Your task to perform on an android device: Open CNN.com Image 0: 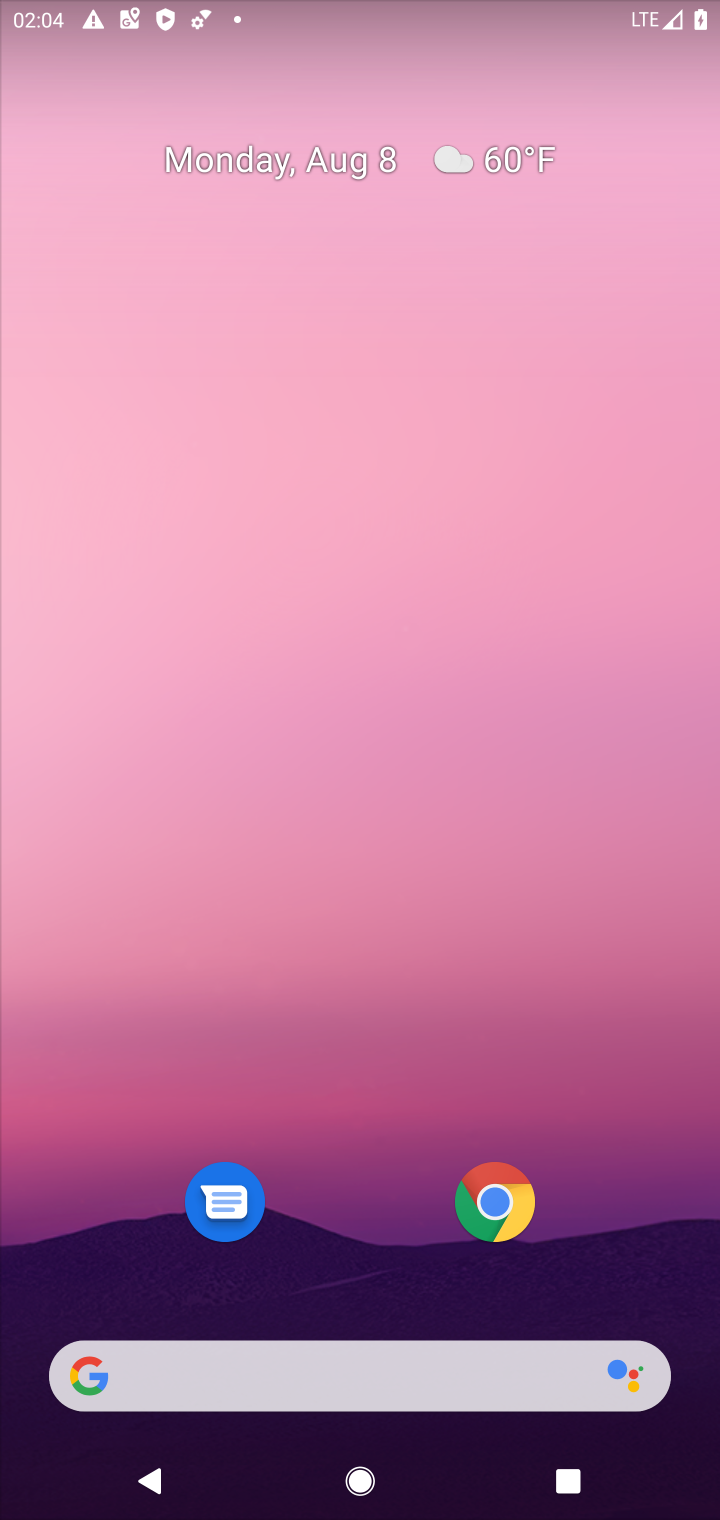
Step 0: click (498, 1207)
Your task to perform on an android device: Open CNN.com Image 1: 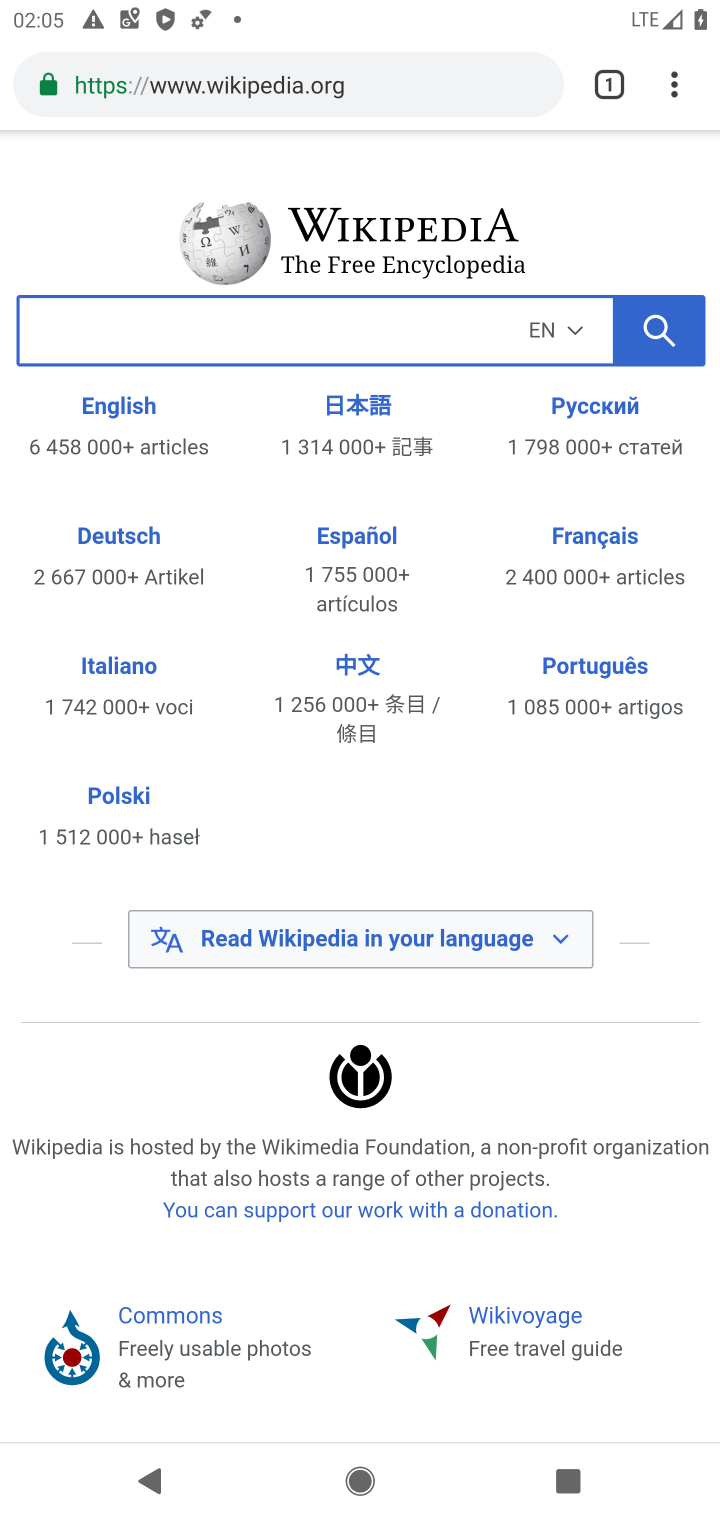
Step 1: click (326, 89)
Your task to perform on an android device: Open CNN.com Image 2: 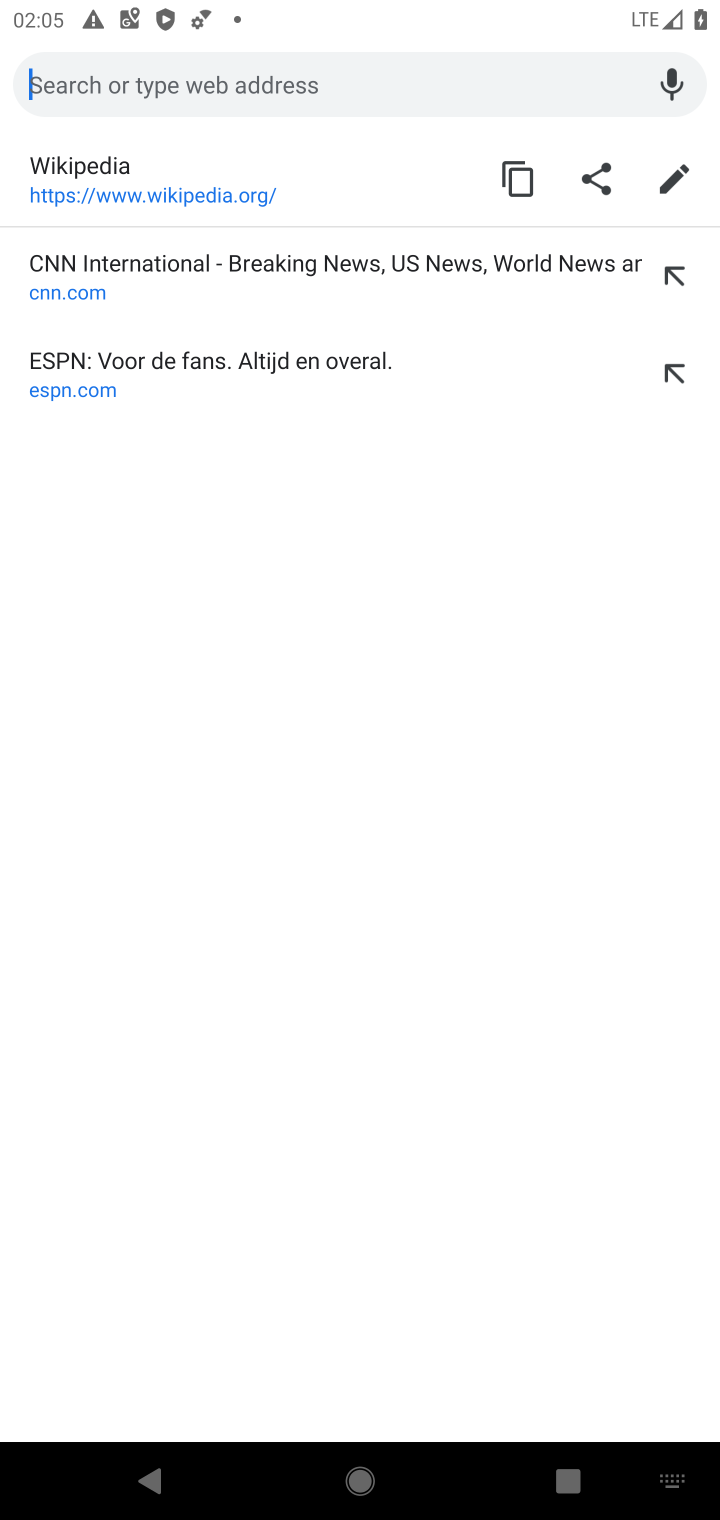
Step 2: click (292, 76)
Your task to perform on an android device: Open CNN.com Image 3: 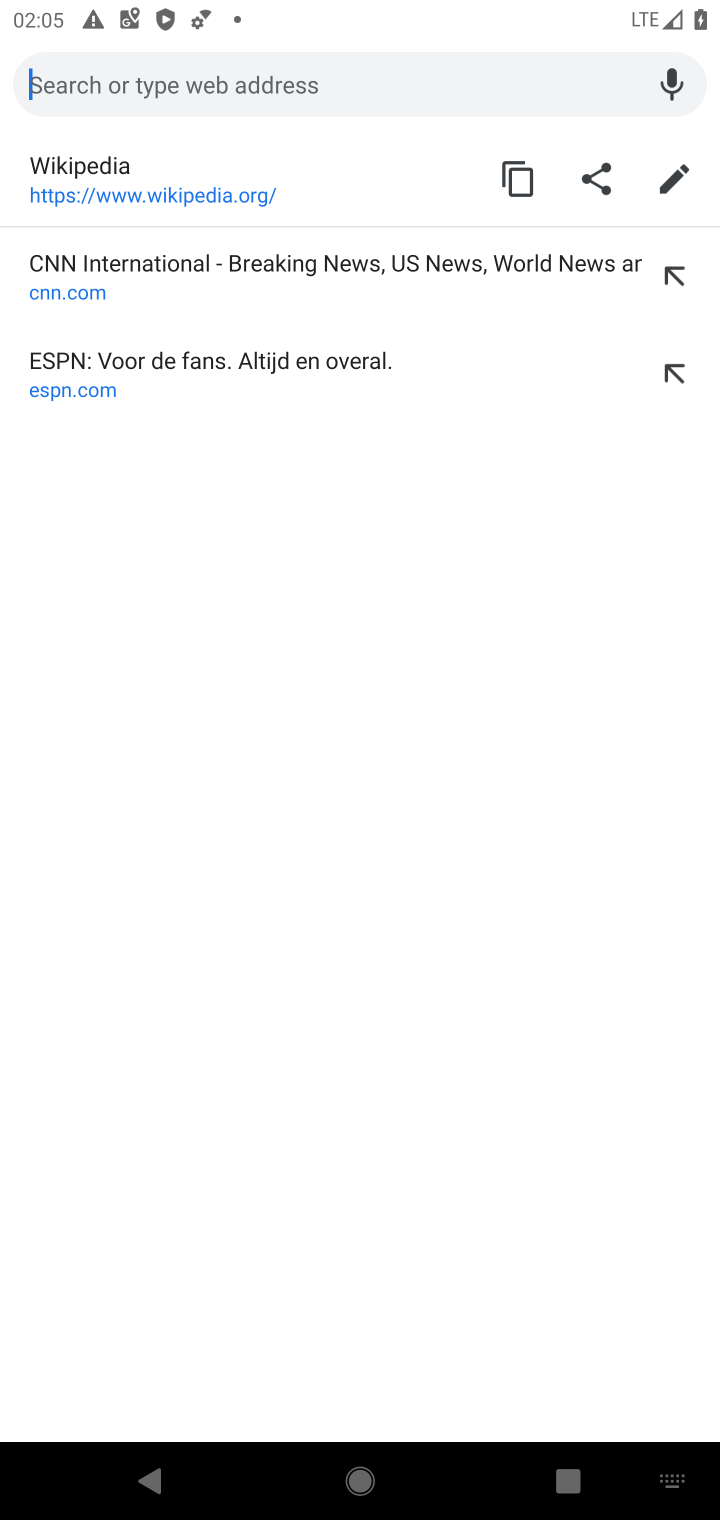
Step 3: type "www.cnn.com"
Your task to perform on an android device: Open CNN.com Image 4: 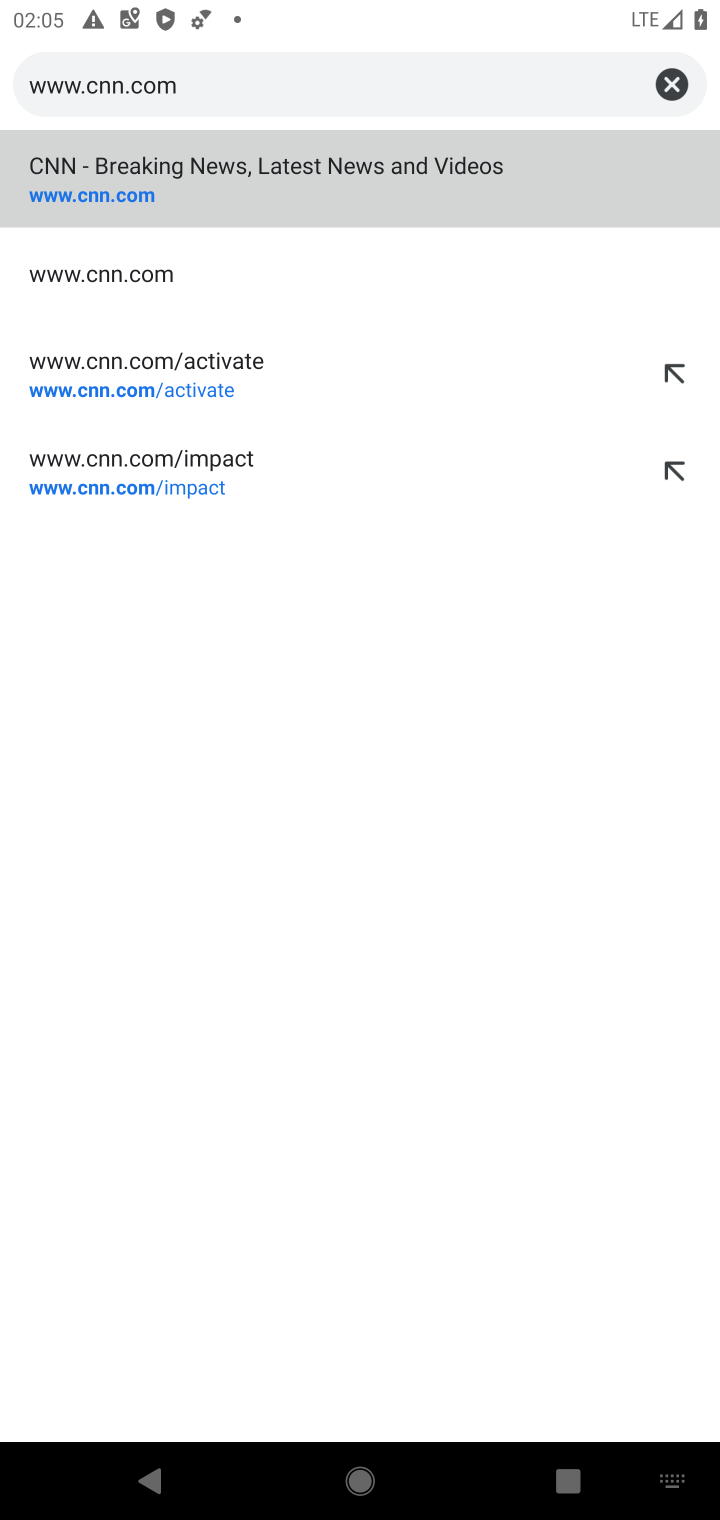
Step 4: click (128, 179)
Your task to perform on an android device: Open CNN.com Image 5: 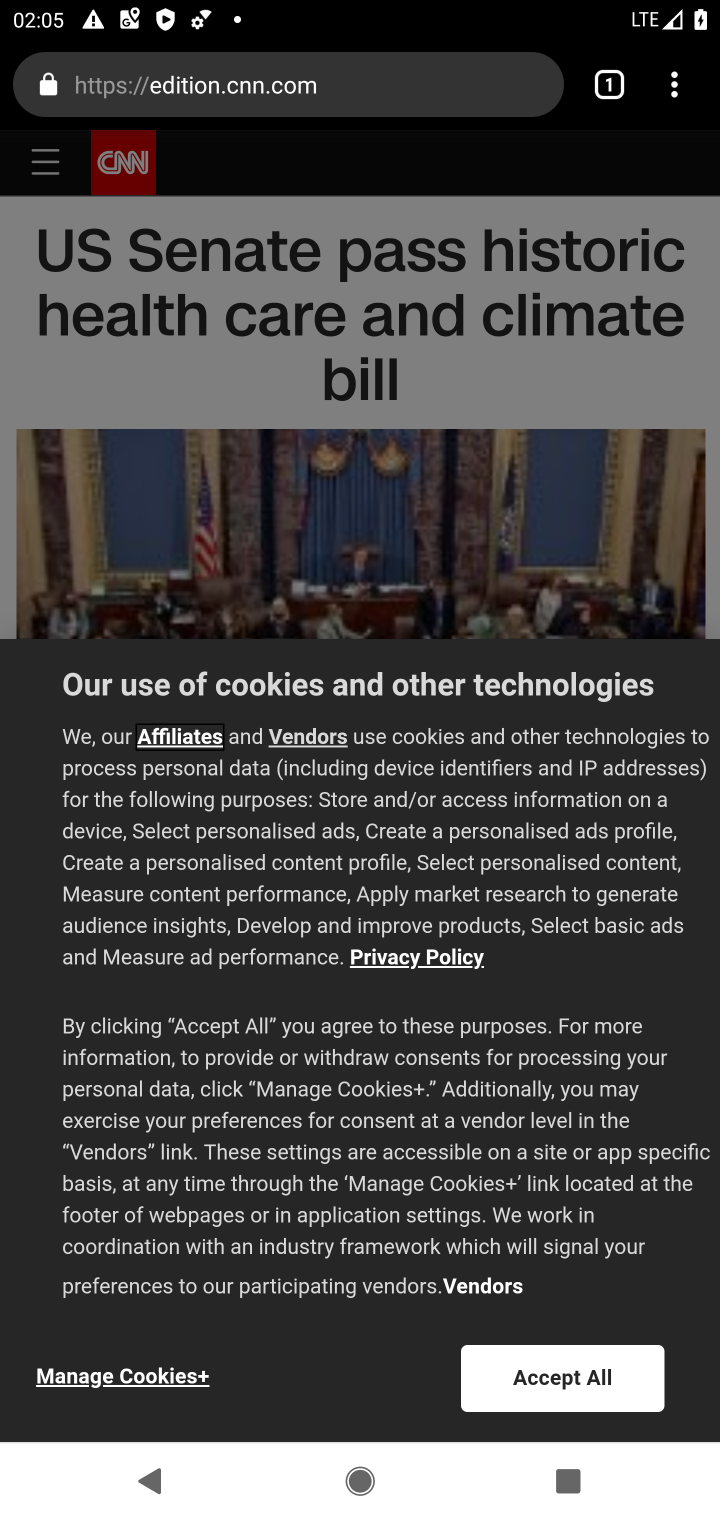
Step 5: task complete